Your task to perform on an android device: check storage Image 0: 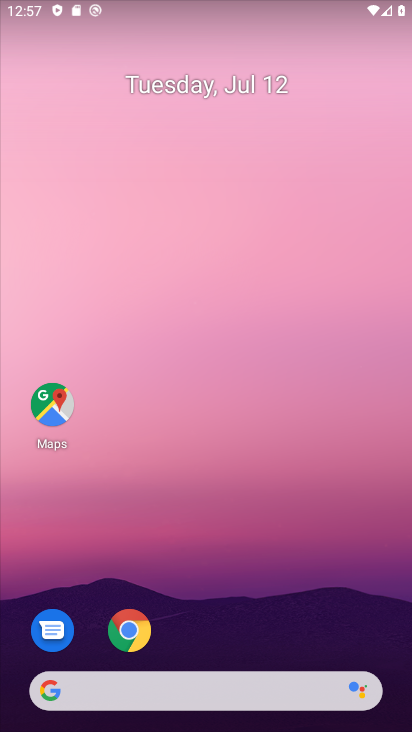
Step 0: drag from (362, 633) to (286, 191)
Your task to perform on an android device: check storage Image 1: 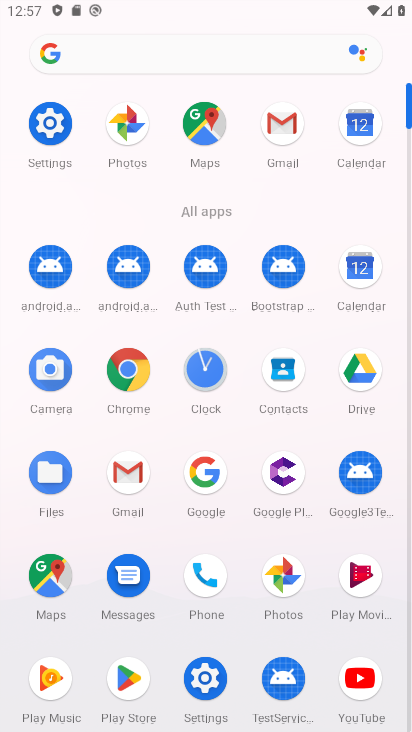
Step 1: click (206, 676)
Your task to perform on an android device: check storage Image 2: 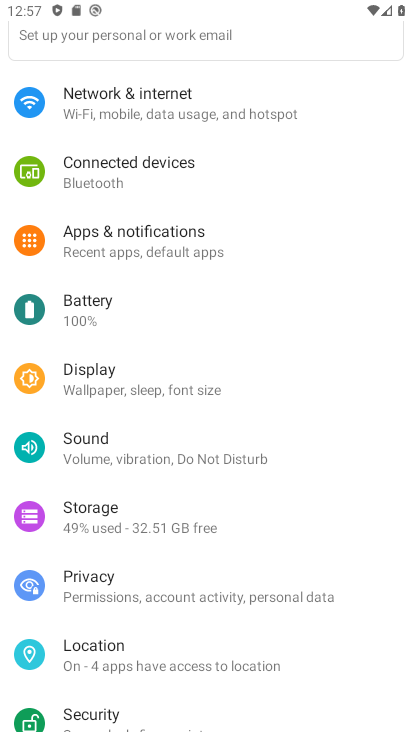
Step 2: click (107, 511)
Your task to perform on an android device: check storage Image 3: 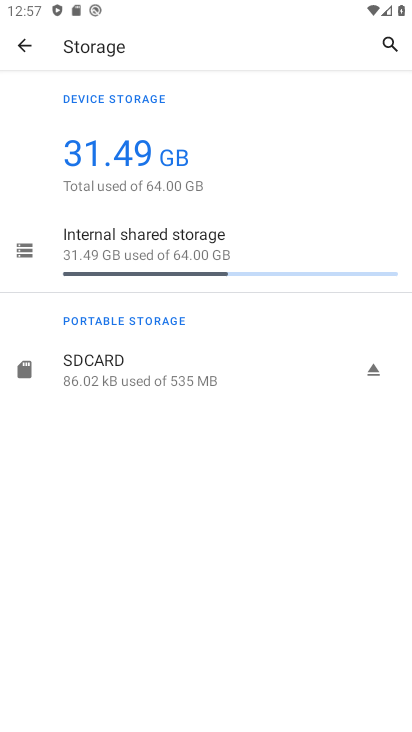
Step 3: task complete